Your task to perform on an android device: Open the calendar and show me this week's events Image 0: 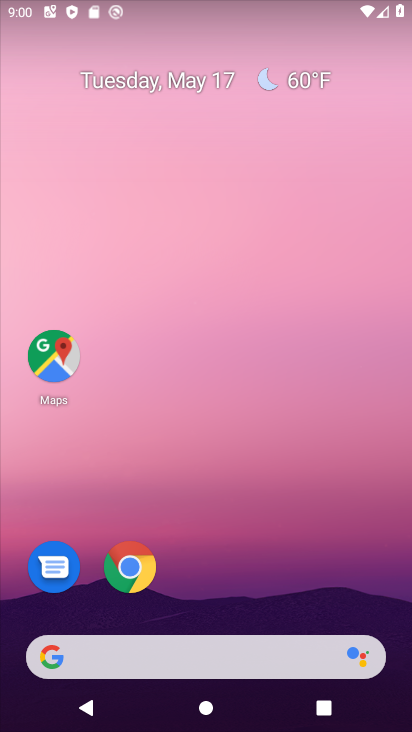
Step 0: drag from (232, 494) to (180, 11)
Your task to perform on an android device: Open the calendar and show me this week's events Image 1: 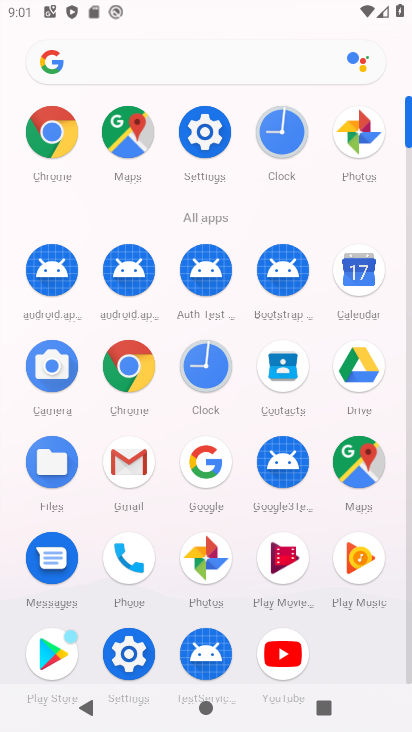
Step 1: click (354, 275)
Your task to perform on an android device: Open the calendar and show me this week's events Image 2: 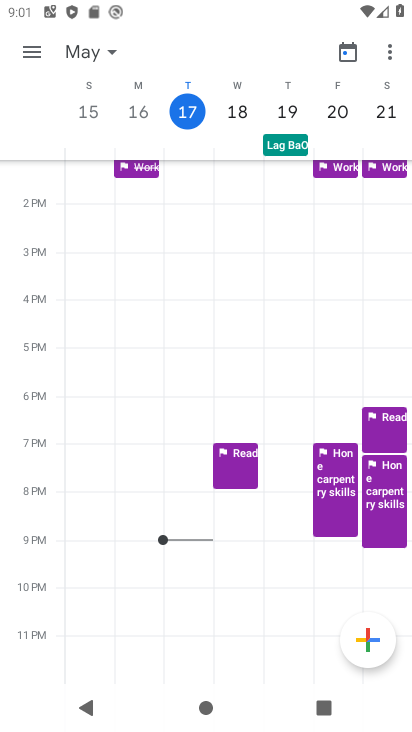
Step 2: task complete